Your task to perform on an android device: change alarm snooze length Image 0: 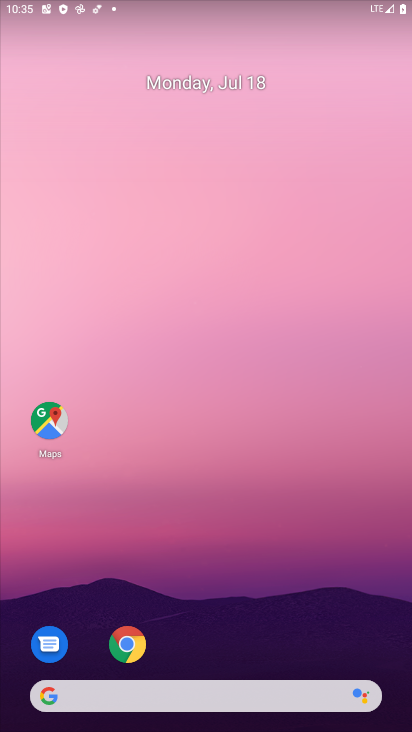
Step 0: drag from (359, 599) to (377, 191)
Your task to perform on an android device: change alarm snooze length Image 1: 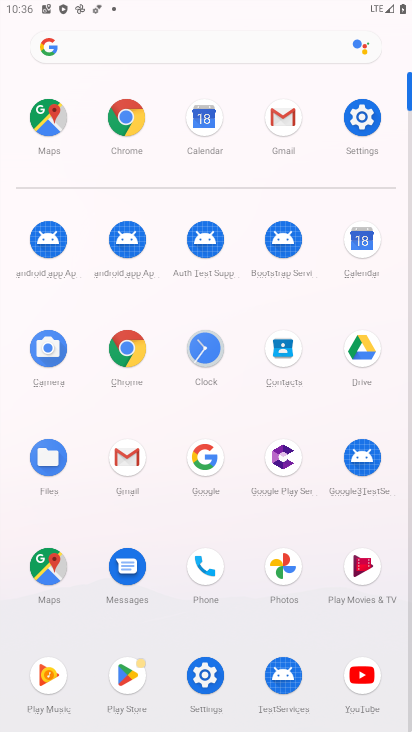
Step 1: click (204, 347)
Your task to perform on an android device: change alarm snooze length Image 2: 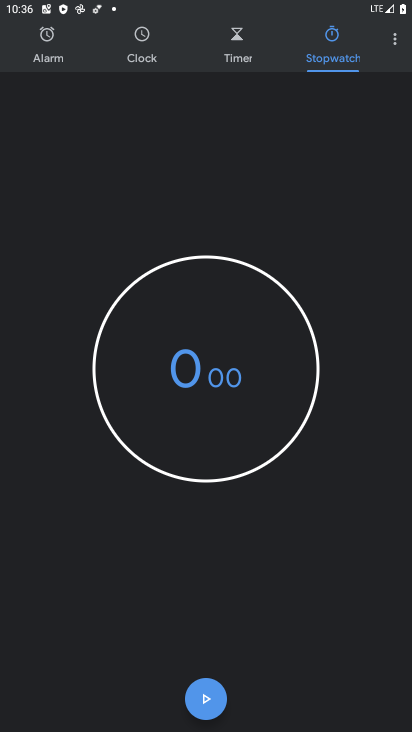
Step 2: click (396, 45)
Your task to perform on an android device: change alarm snooze length Image 3: 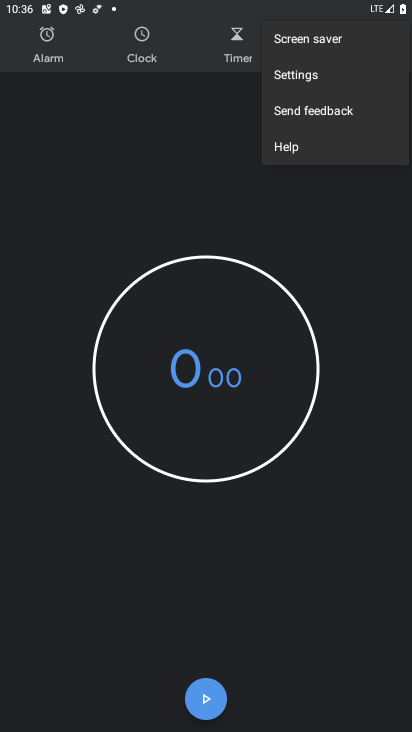
Step 3: click (313, 79)
Your task to perform on an android device: change alarm snooze length Image 4: 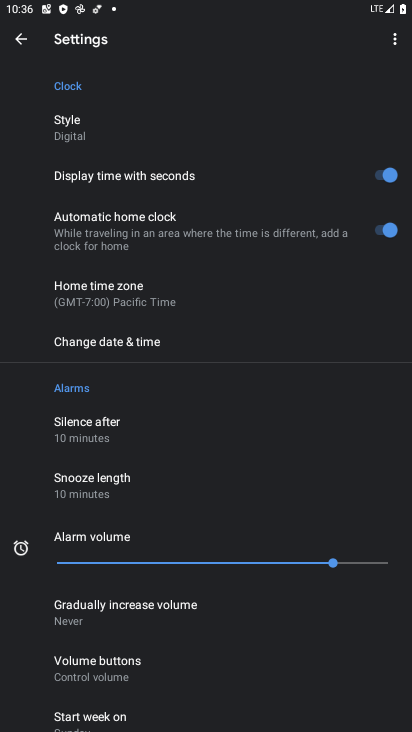
Step 4: drag from (325, 399) to (338, 327)
Your task to perform on an android device: change alarm snooze length Image 5: 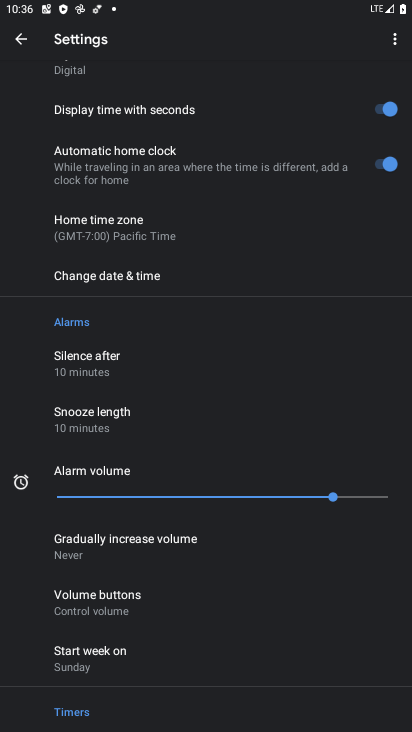
Step 5: drag from (355, 547) to (366, 462)
Your task to perform on an android device: change alarm snooze length Image 6: 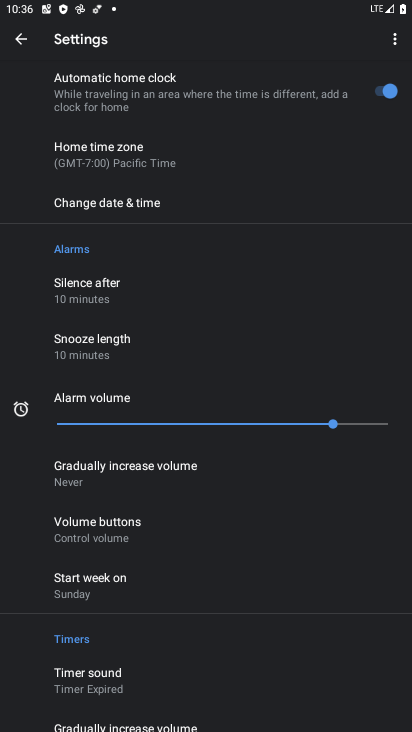
Step 6: drag from (341, 600) to (350, 496)
Your task to perform on an android device: change alarm snooze length Image 7: 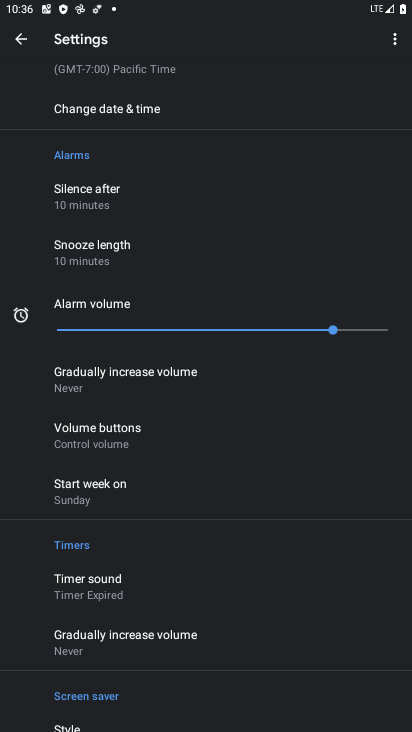
Step 7: drag from (343, 614) to (351, 481)
Your task to perform on an android device: change alarm snooze length Image 8: 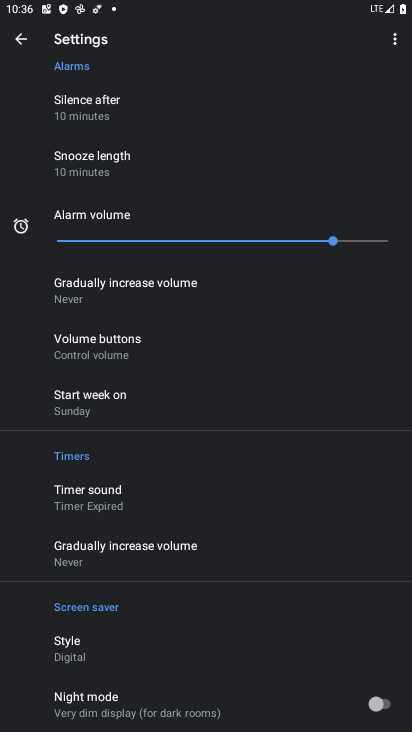
Step 8: drag from (361, 394) to (353, 480)
Your task to perform on an android device: change alarm snooze length Image 9: 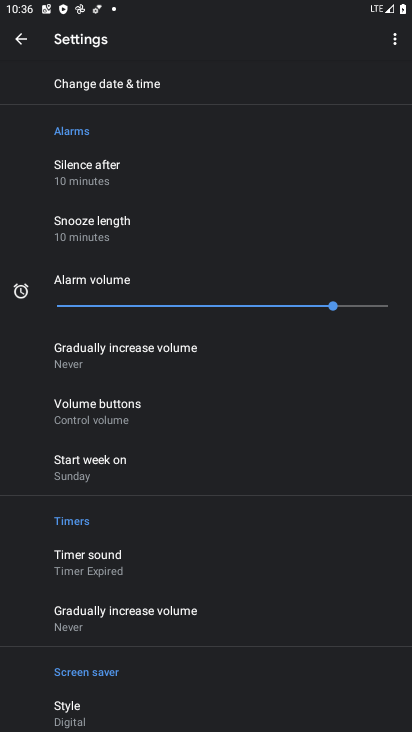
Step 9: drag from (361, 393) to (355, 490)
Your task to perform on an android device: change alarm snooze length Image 10: 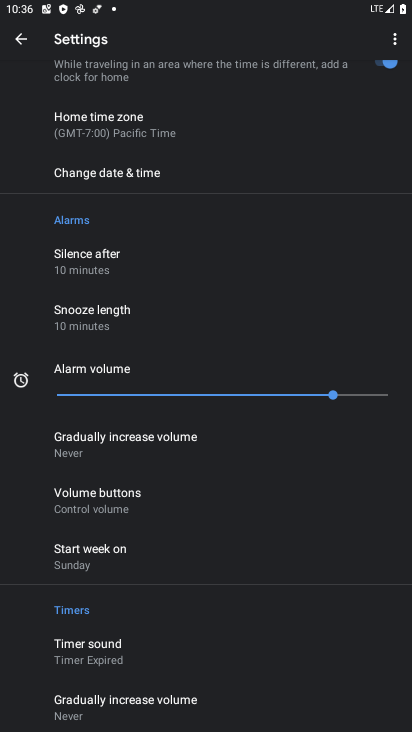
Step 10: drag from (370, 297) to (367, 544)
Your task to perform on an android device: change alarm snooze length Image 11: 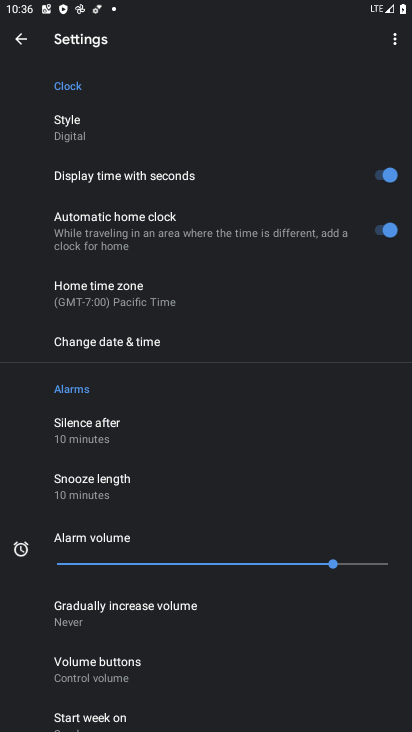
Step 11: click (144, 493)
Your task to perform on an android device: change alarm snooze length Image 12: 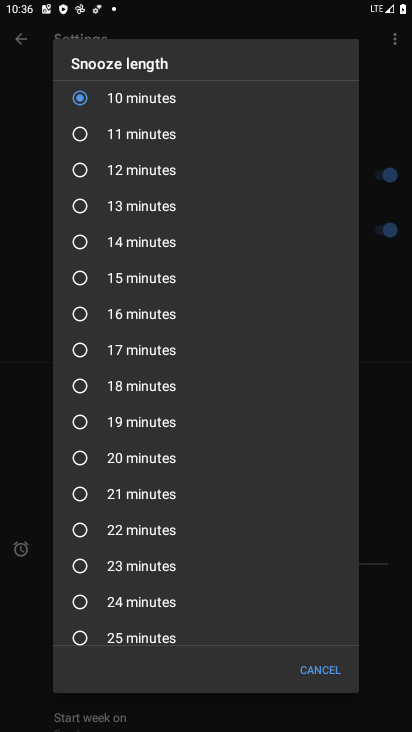
Step 12: click (144, 493)
Your task to perform on an android device: change alarm snooze length Image 13: 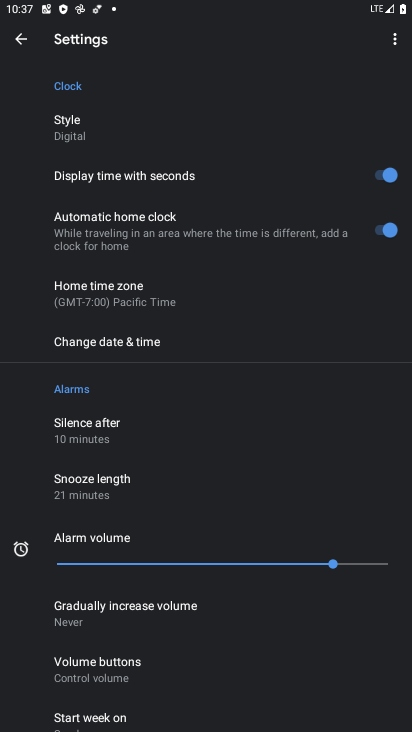
Step 13: task complete